Your task to perform on an android device: turn on sleep mode Image 0: 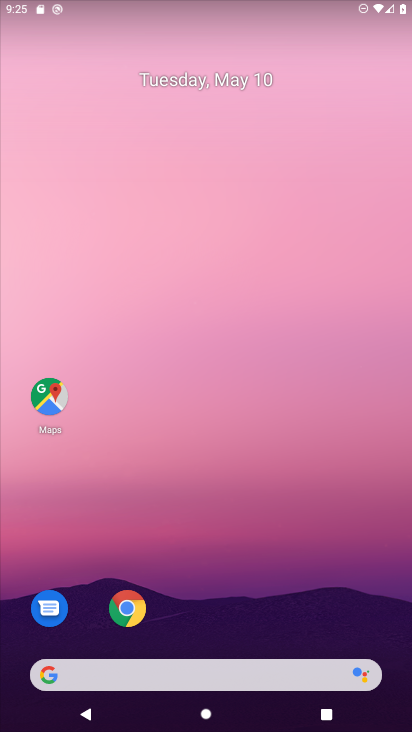
Step 0: drag from (397, 619) to (285, 14)
Your task to perform on an android device: turn on sleep mode Image 1: 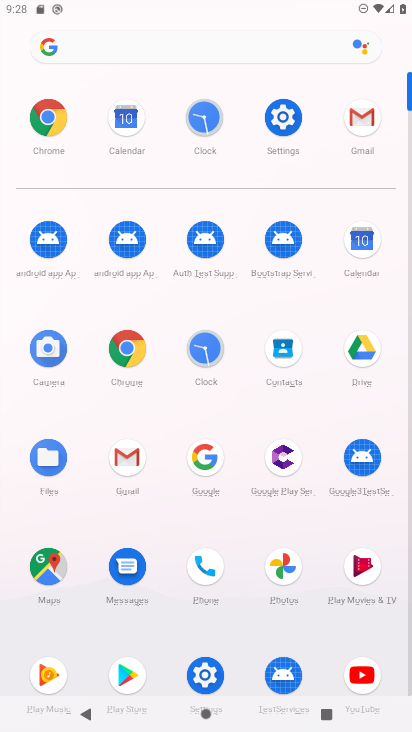
Step 1: click (210, 663)
Your task to perform on an android device: turn on sleep mode Image 2: 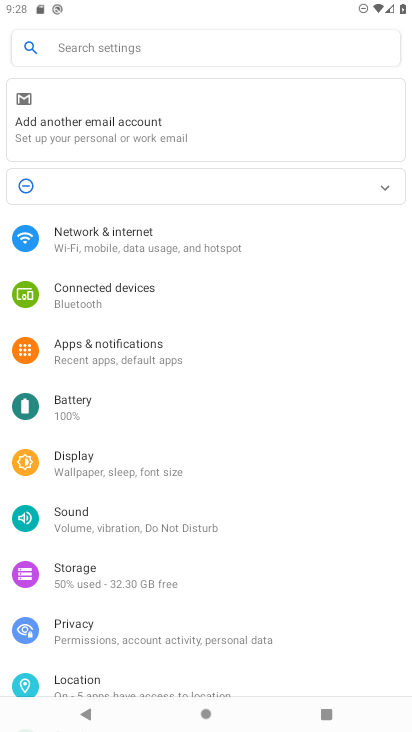
Step 2: task complete